Your task to perform on an android device: Open privacy settings Image 0: 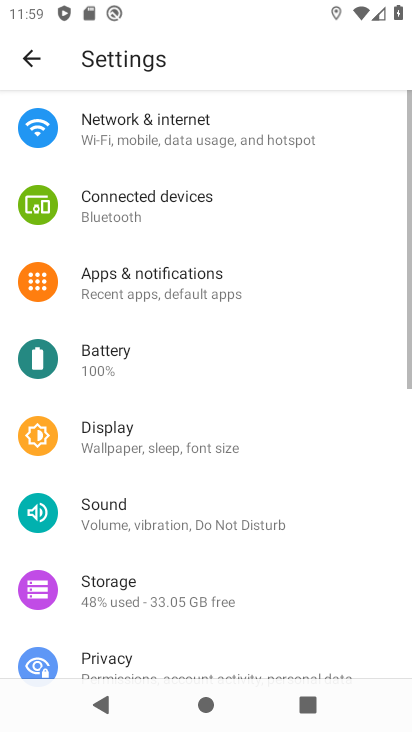
Step 0: press home button
Your task to perform on an android device: Open privacy settings Image 1: 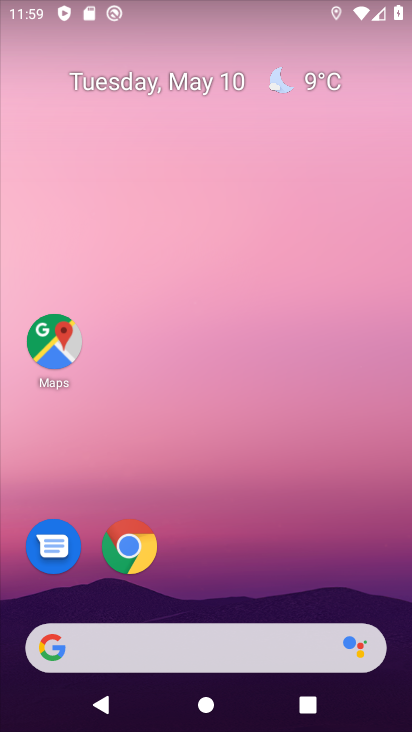
Step 1: drag from (162, 649) to (314, 65)
Your task to perform on an android device: Open privacy settings Image 2: 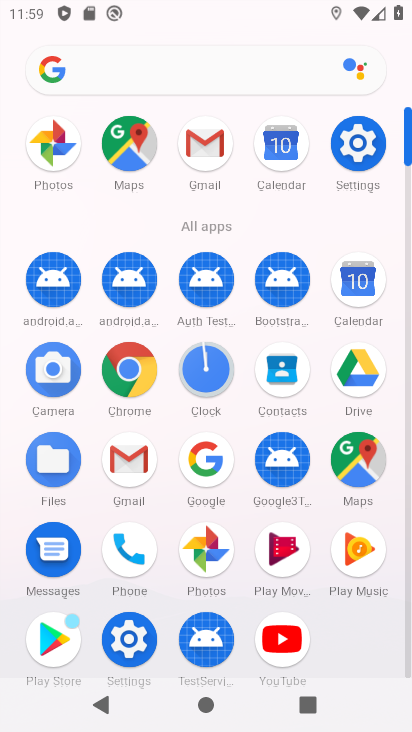
Step 2: click (361, 140)
Your task to perform on an android device: Open privacy settings Image 3: 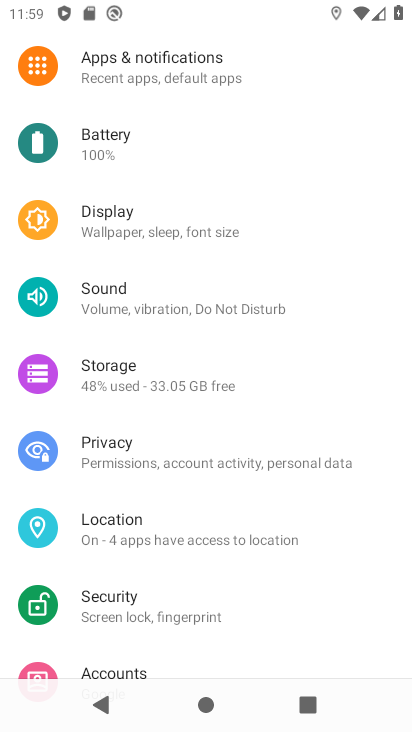
Step 3: click (122, 453)
Your task to perform on an android device: Open privacy settings Image 4: 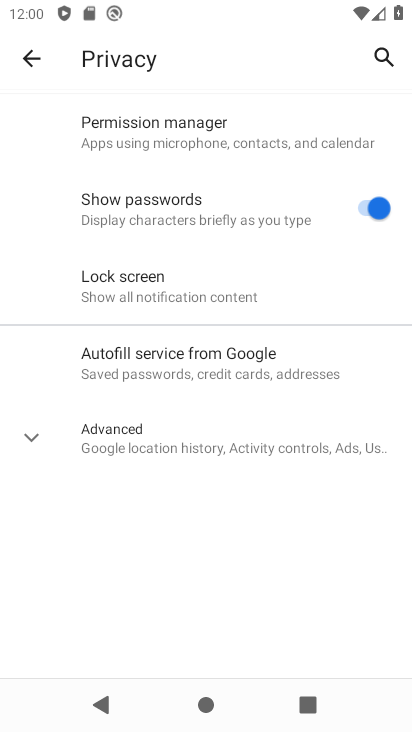
Step 4: task complete